Your task to perform on an android device: Search for sushi restaurants on Maps Image 0: 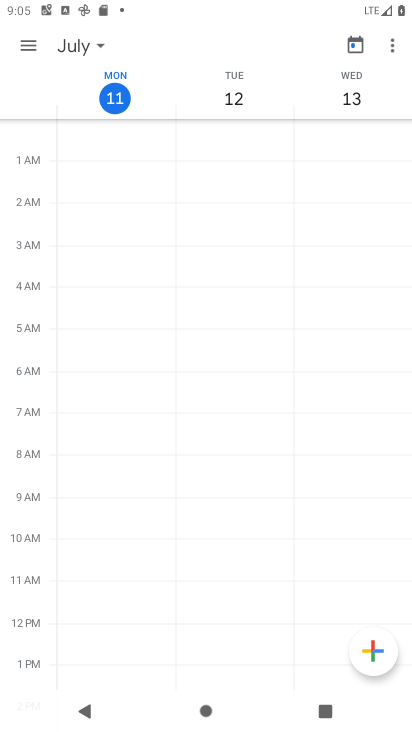
Step 0: press home button
Your task to perform on an android device: Search for sushi restaurants on Maps Image 1: 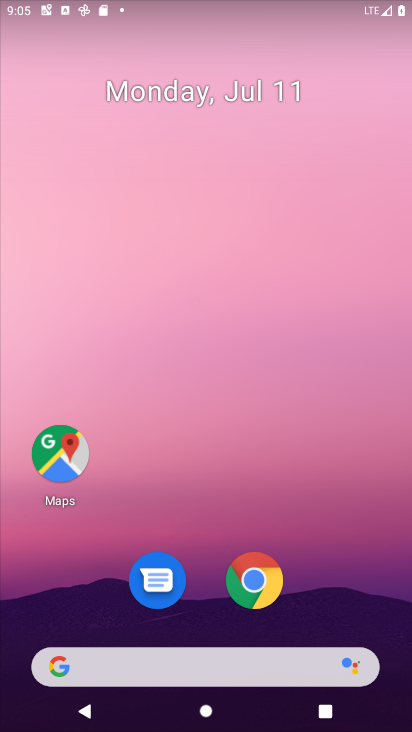
Step 1: click (48, 462)
Your task to perform on an android device: Search for sushi restaurants on Maps Image 2: 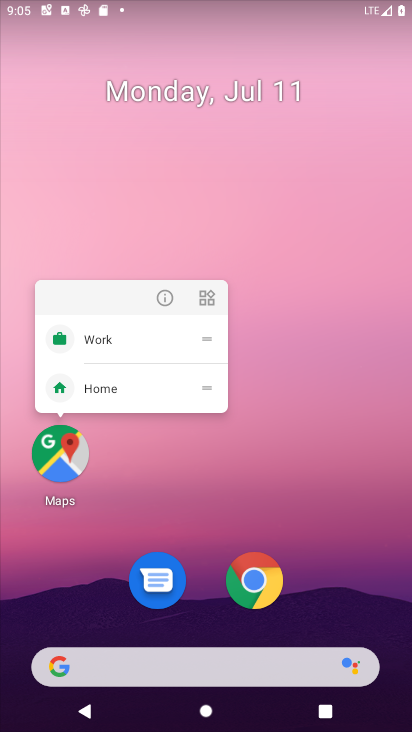
Step 2: click (63, 448)
Your task to perform on an android device: Search for sushi restaurants on Maps Image 3: 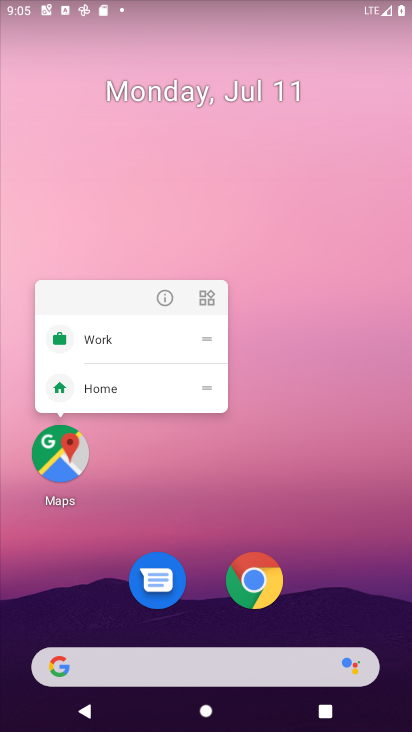
Step 3: click (63, 448)
Your task to perform on an android device: Search for sushi restaurants on Maps Image 4: 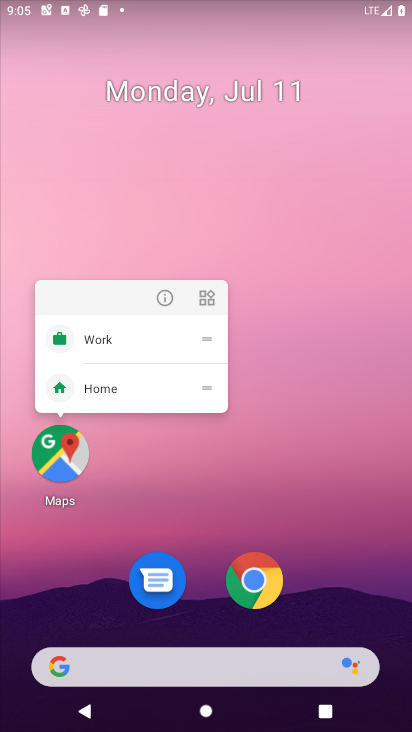
Step 4: click (63, 448)
Your task to perform on an android device: Search for sushi restaurants on Maps Image 5: 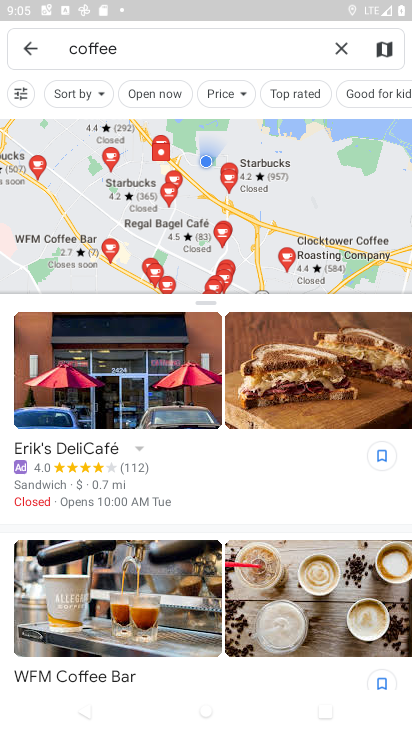
Step 5: click (335, 47)
Your task to perform on an android device: Search for sushi restaurants on Maps Image 6: 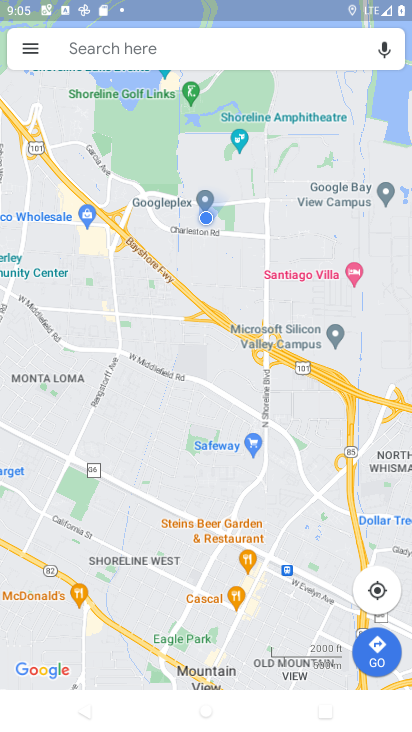
Step 6: click (255, 50)
Your task to perform on an android device: Search for sushi restaurants on Maps Image 7: 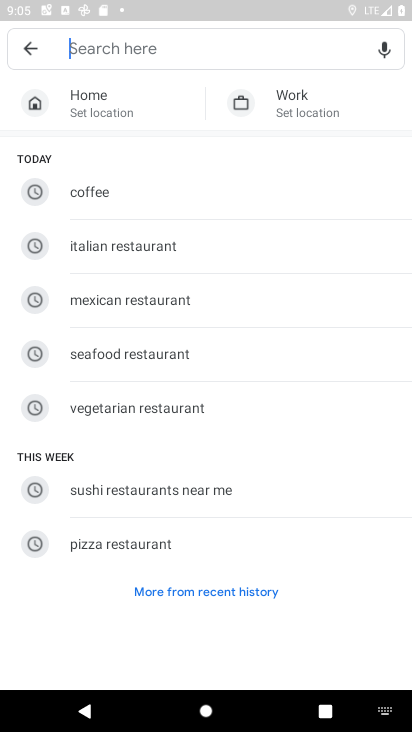
Step 7: click (200, 490)
Your task to perform on an android device: Search for sushi restaurants on Maps Image 8: 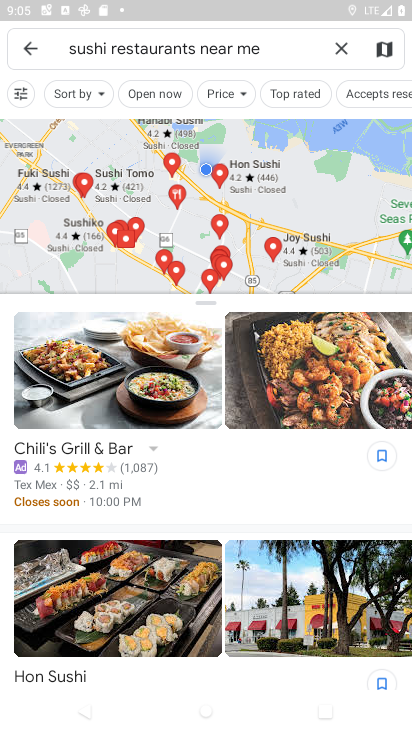
Step 8: task complete